Your task to perform on an android device: Turn off the flashlight Image 0: 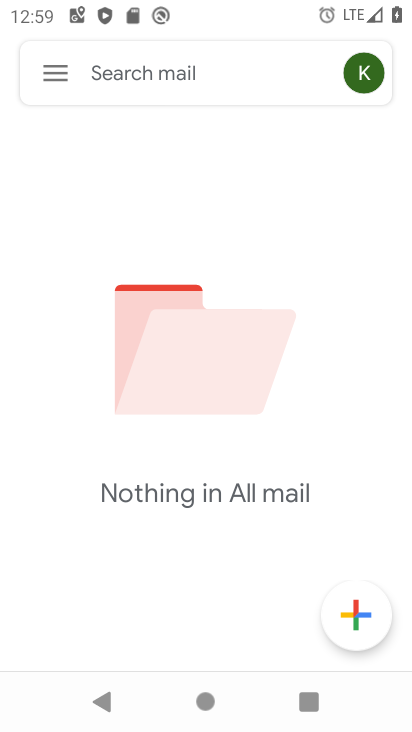
Step 0: press home button
Your task to perform on an android device: Turn off the flashlight Image 1: 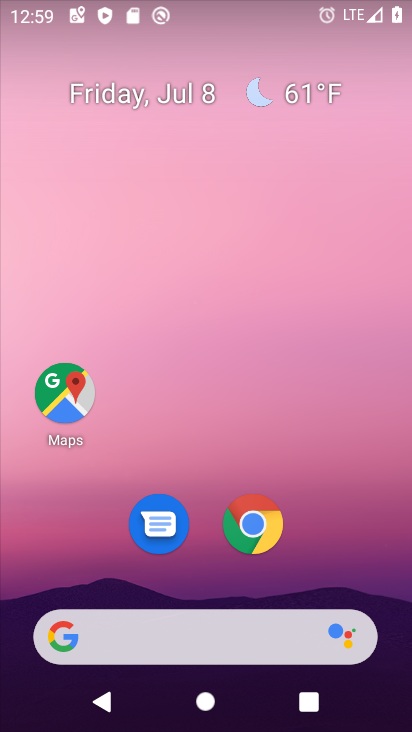
Step 1: drag from (220, 434) to (253, 2)
Your task to perform on an android device: Turn off the flashlight Image 2: 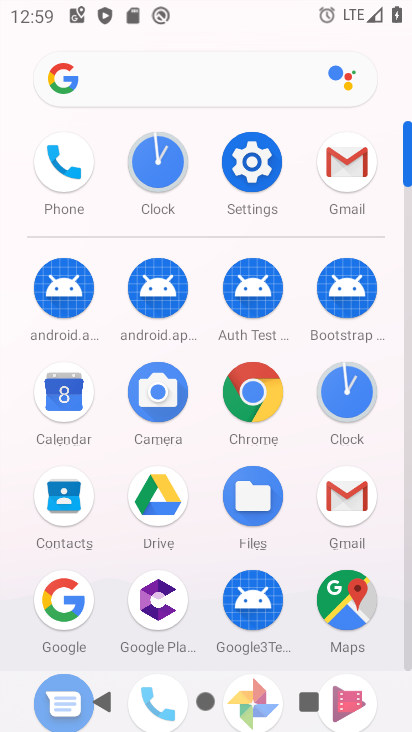
Step 2: click (257, 159)
Your task to perform on an android device: Turn off the flashlight Image 3: 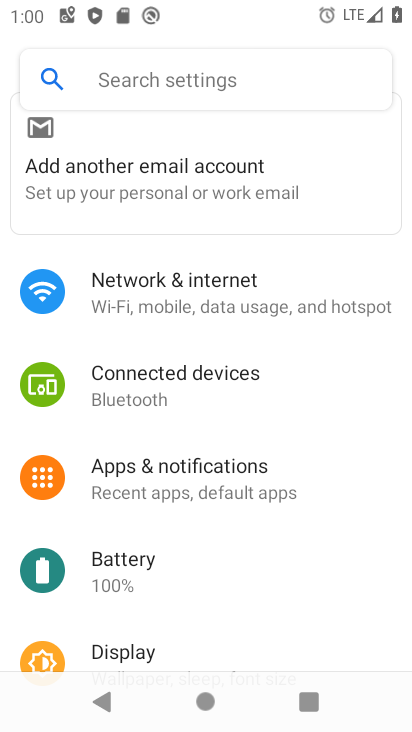
Step 3: click (256, 73)
Your task to perform on an android device: Turn off the flashlight Image 4: 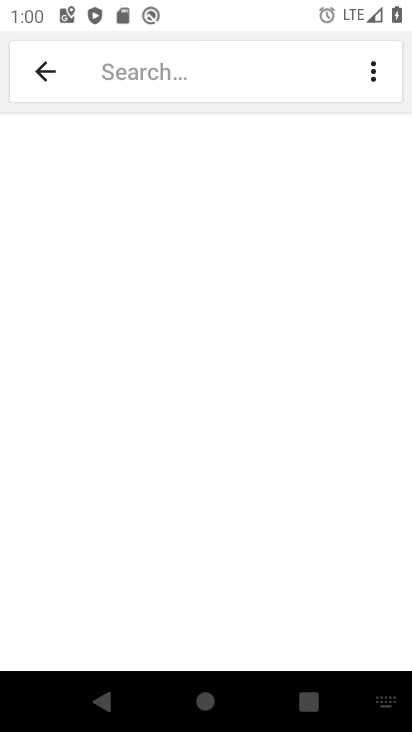
Step 4: type "Flashlight"
Your task to perform on an android device: Turn off the flashlight Image 5: 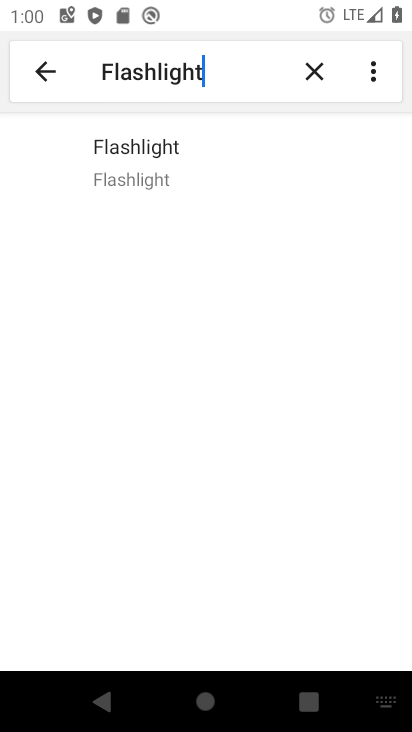
Step 5: click (154, 156)
Your task to perform on an android device: Turn off the flashlight Image 6: 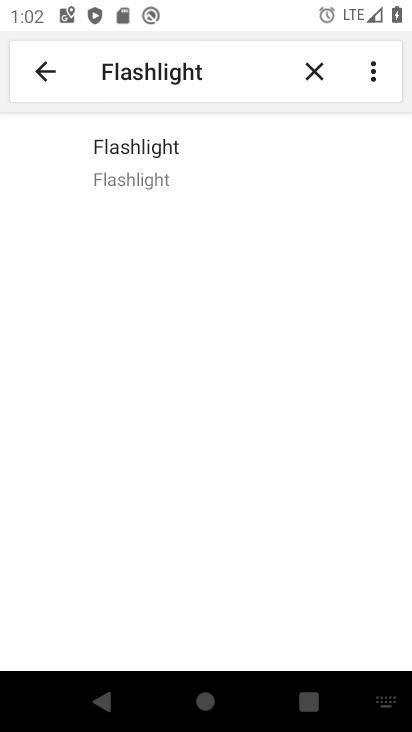
Step 6: task complete